Your task to perform on an android device: Search for pizza restaurants on Maps Image 0: 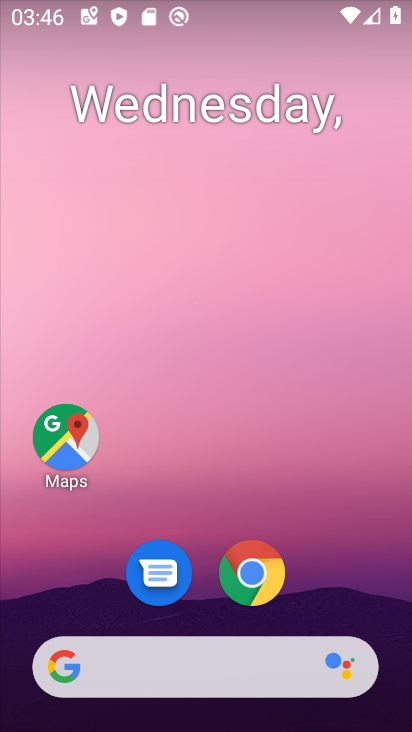
Step 0: click (65, 439)
Your task to perform on an android device: Search for pizza restaurants on Maps Image 1: 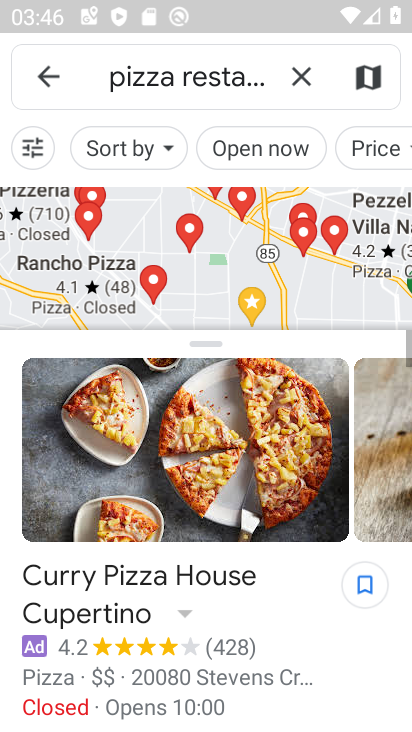
Step 1: click (296, 77)
Your task to perform on an android device: Search for pizza restaurants on Maps Image 2: 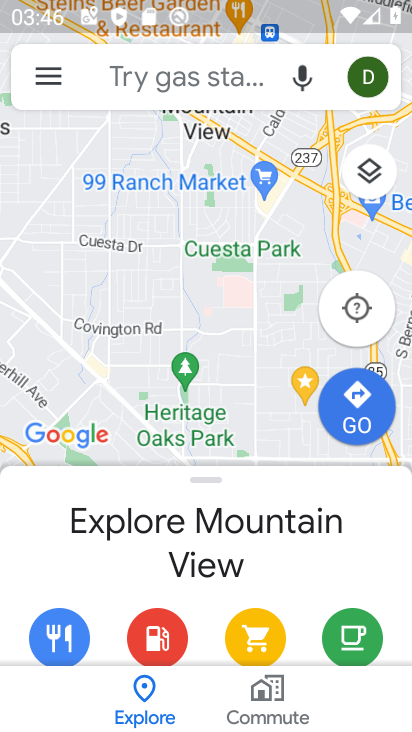
Step 2: click (171, 86)
Your task to perform on an android device: Search for pizza restaurants on Maps Image 3: 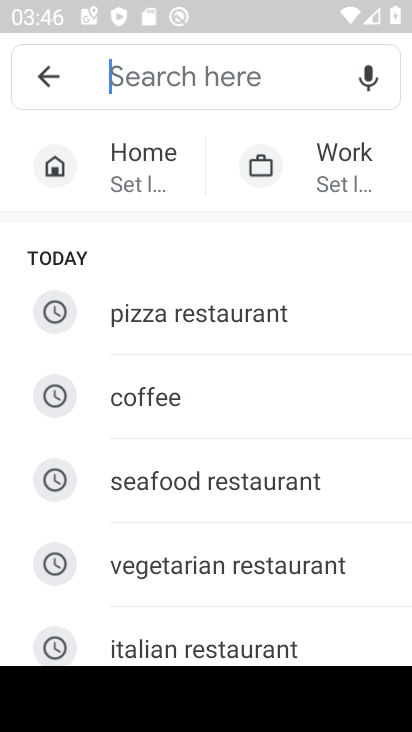
Step 3: click (210, 307)
Your task to perform on an android device: Search for pizza restaurants on Maps Image 4: 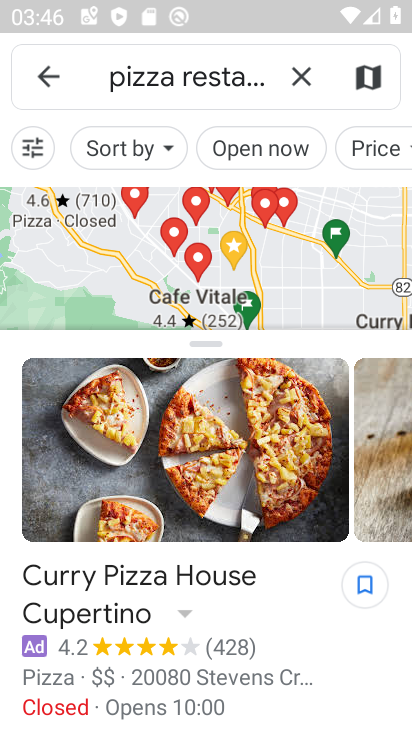
Step 4: task complete